Your task to perform on an android device: Open Wikipedia Image 0: 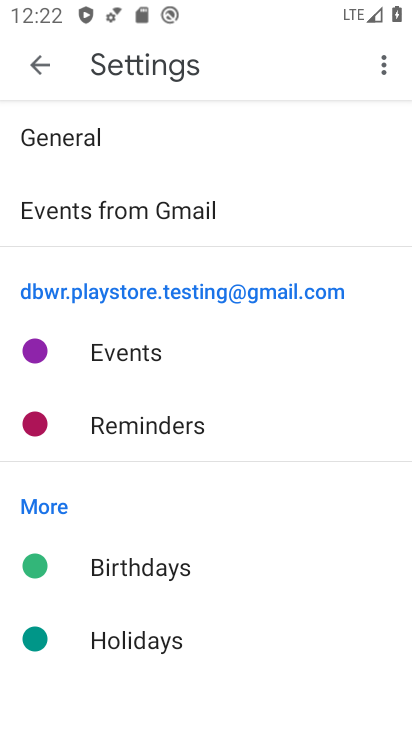
Step 0: drag from (201, 647) to (165, 277)
Your task to perform on an android device: Open Wikipedia Image 1: 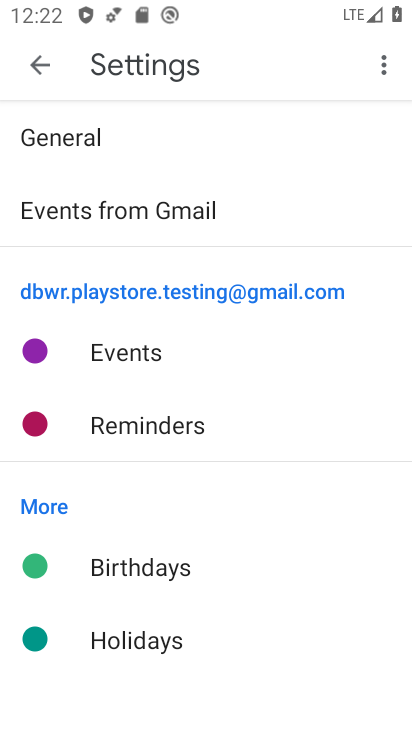
Step 1: press home button
Your task to perform on an android device: Open Wikipedia Image 2: 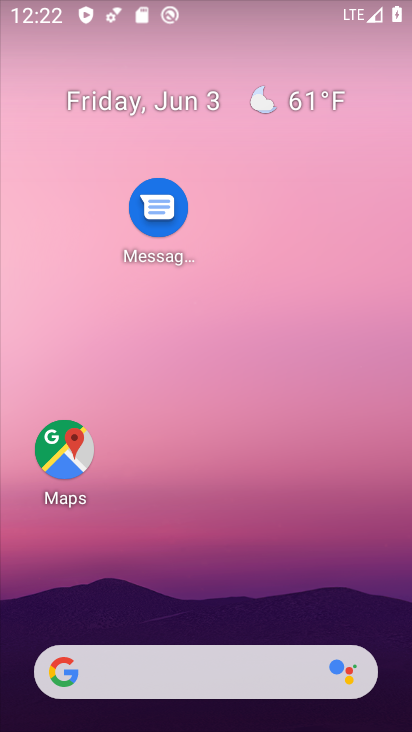
Step 2: drag from (217, 632) to (185, 1)
Your task to perform on an android device: Open Wikipedia Image 3: 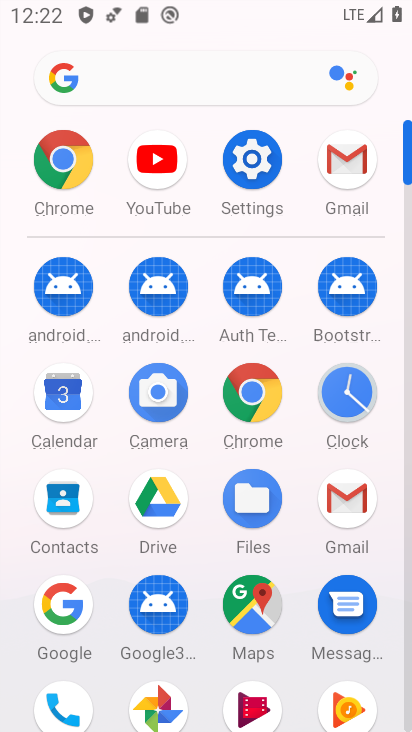
Step 3: click (235, 410)
Your task to perform on an android device: Open Wikipedia Image 4: 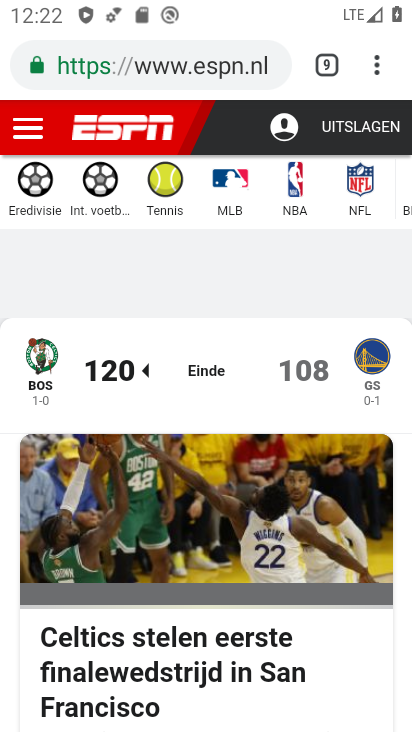
Step 4: click (324, 64)
Your task to perform on an android device: Open Wikipedia Image 5: 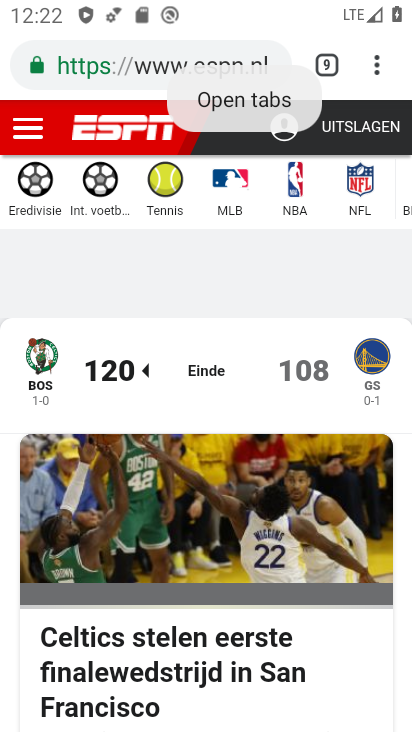
Step 5: click (321, 68)
Your task to perform on an android device: Open Wikipedia Image 6: 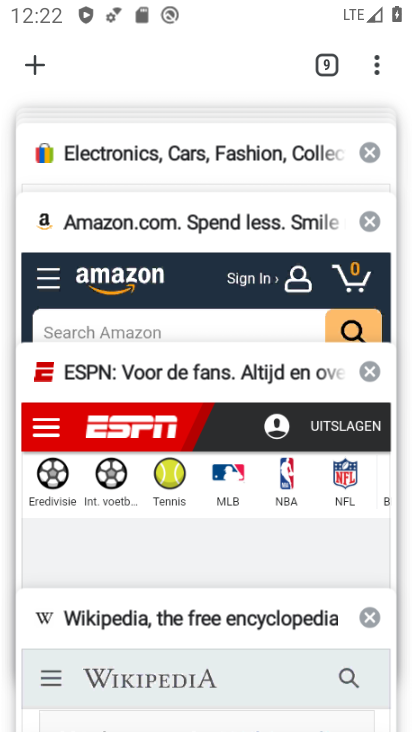
Step 6: click (35, 64)
Your task to perform on an android device: Open Wikipedia Image 7: 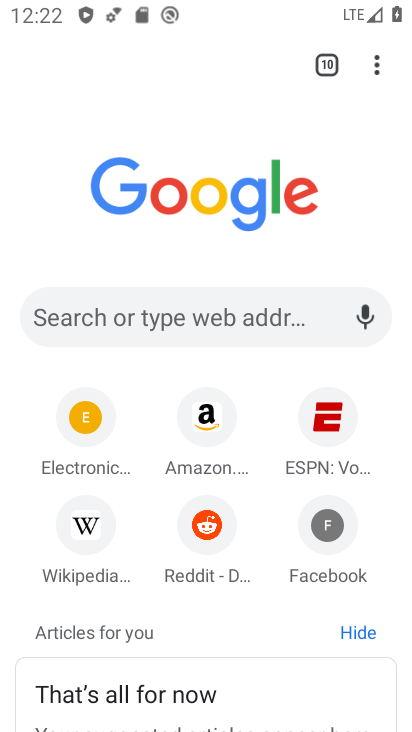
Step 7: click (95, 498)
Your task to perform on an android device: Open Wikipedia Image 8: 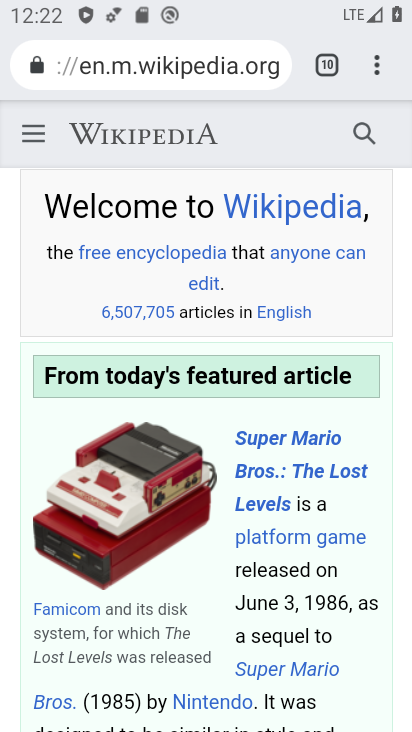
Step 8: task complete